Your task to perform on an android device: Check the news Image 0: 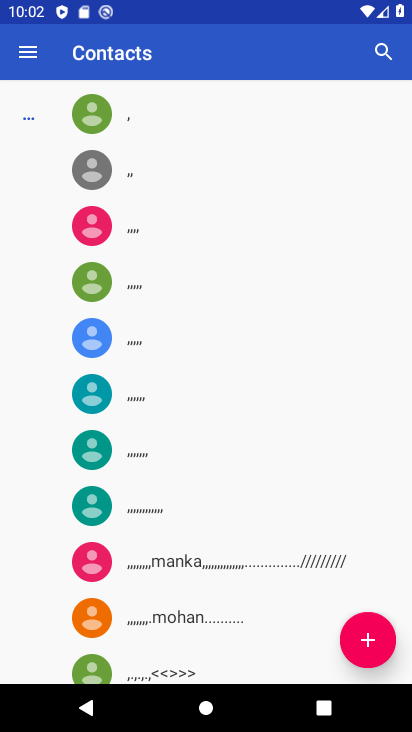
Step 0: press home button
Your task to perform on an android device: Check the news Image 1: 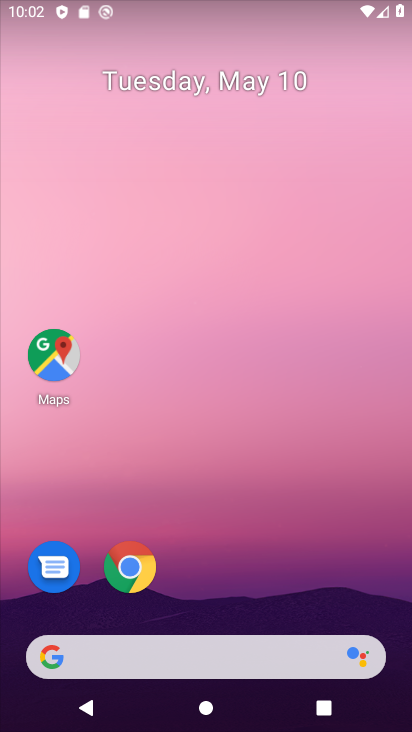
Step 1: click (209, 657)
Your task to perform on an android device: Check the news Image 2: 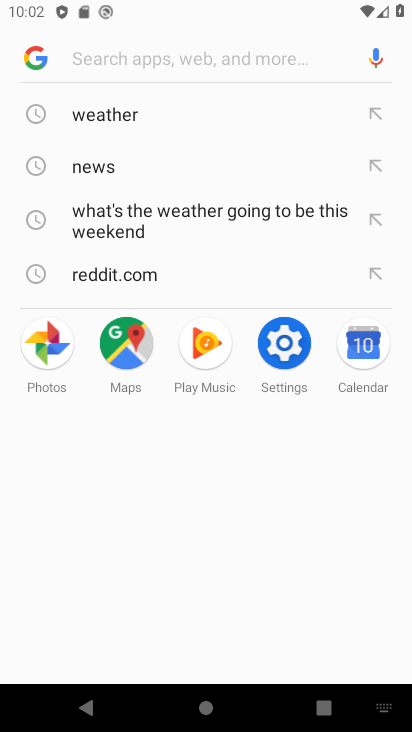
Step 2: click (118, 174)
Your task to perform on an android device: Check the news Image 3: 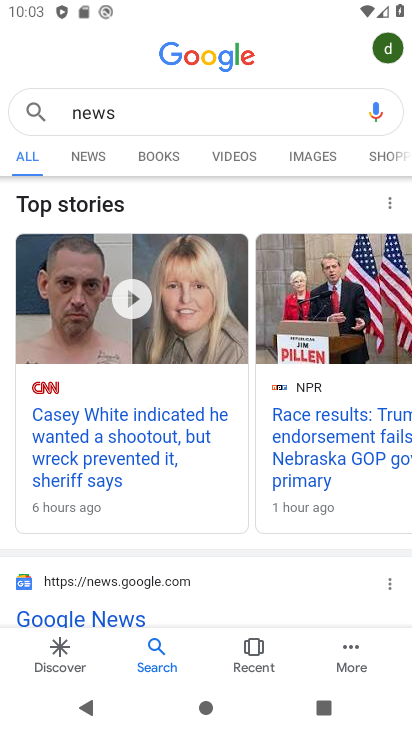
Step 3: task complete